Your task to perform on an android device: change the upload size in google photos Image 0: 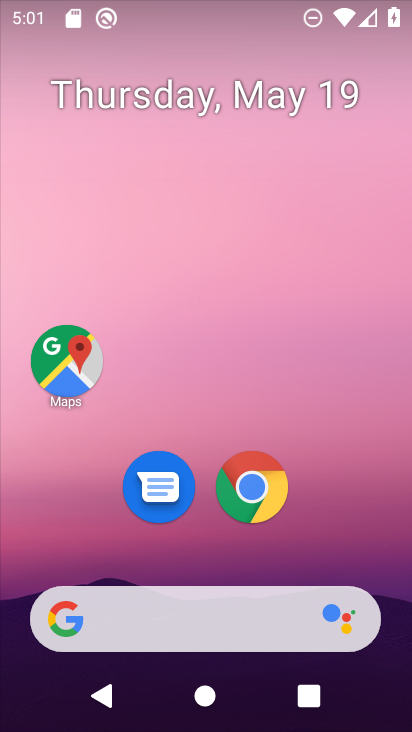
Step 0: drag from (341, 529) to (245, 42)
Your task to perform on an android device: change the upload size in google photos Image 1: 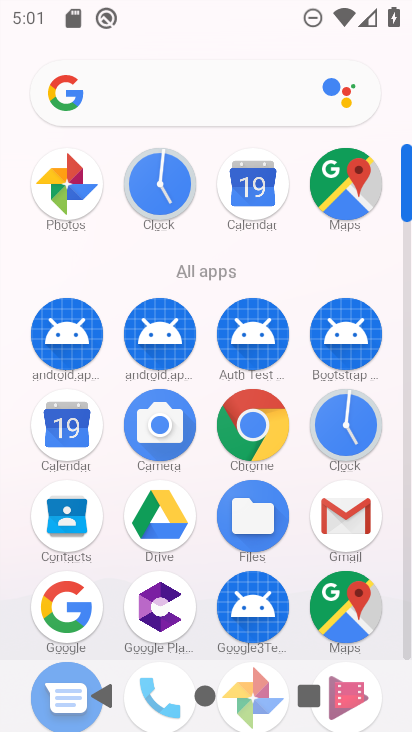
Step 1: click (66, 181)
Your task to perform on an android device: change the upload size in google photos Image 2: 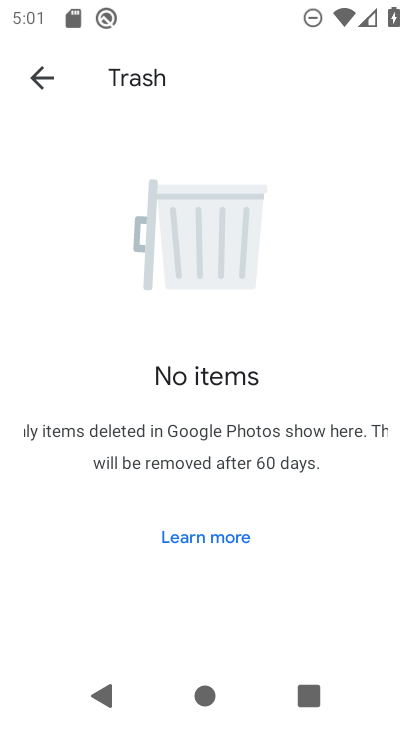
Step 2: press back button
Your task to perform on an android device: change the upload size in google photos Image 3: 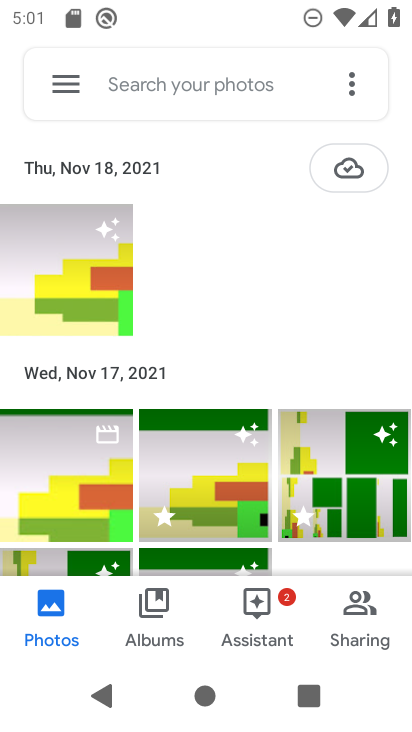
Step 3: click (70, 88)
Your task to perform on an android device: change the upload size in google photos Image 4: 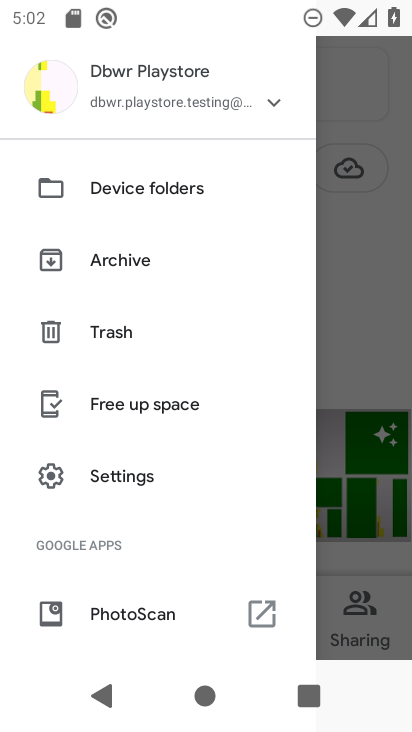
Step 4: click (123, 474)
Your task to perform on an android device: change the upload size in google photos Image 5: 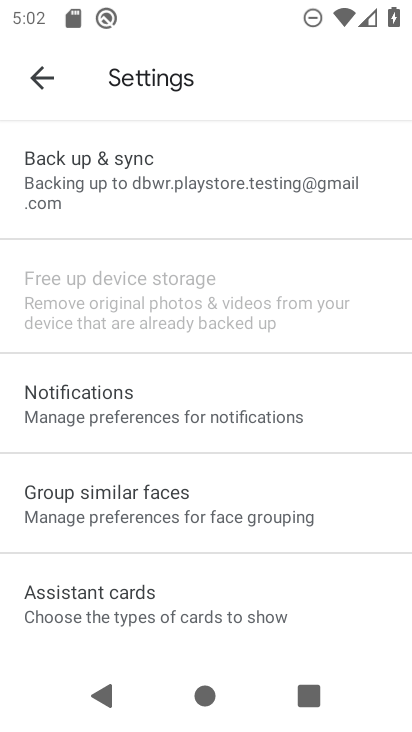
Step 5: click (141, 180)
Your task to perform on an android device: change the upload size in google photos Image 6: 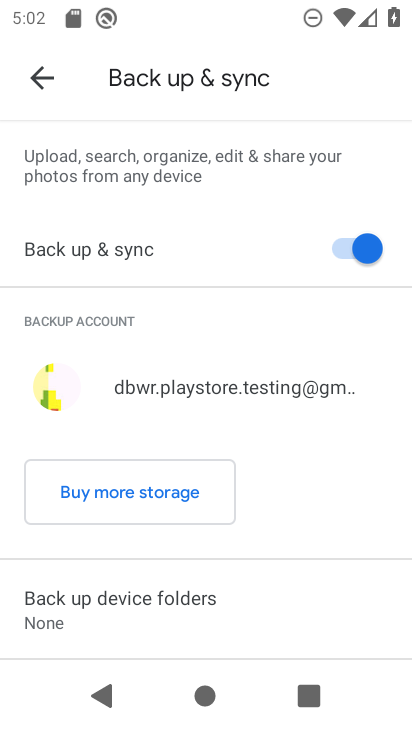
Step 6: drag from (287, 523) to (322, 418)
Your task to perform on an android device: change the upload size in google photos Image 7: 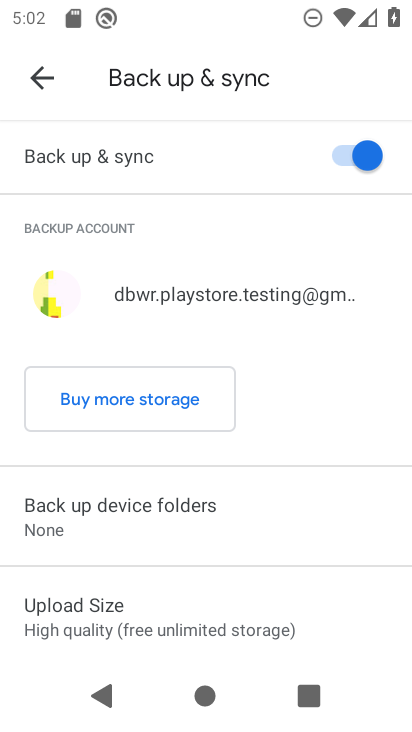
Step 7: drag from (257, 529) to (314, 451)
Your task to perform on an android device: change the upload size in google photos Image 8: 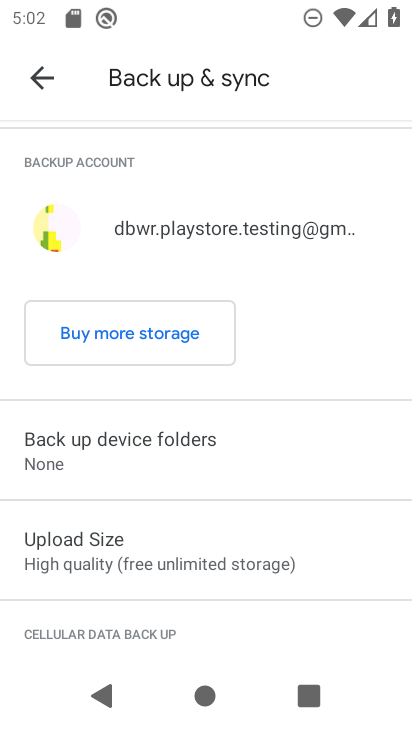
Step 8: click (208, 570)
Your task to perform on an android device: change the upload size in google photos Image 9: 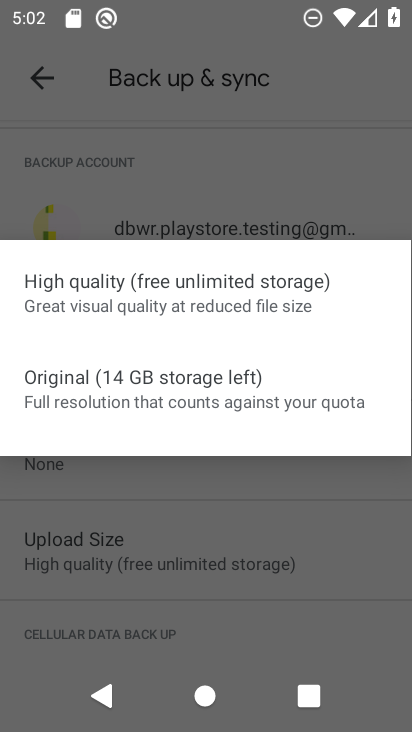
Step 9: click (208, 387)
Your task to perform on an android device: change the upload size in google photos Image 10: 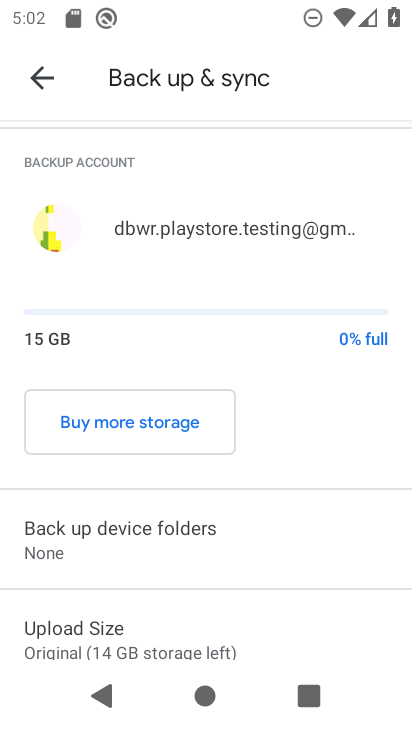
Step 10: task complete